Your task to perform on an android device: Go to eBay Image 0: 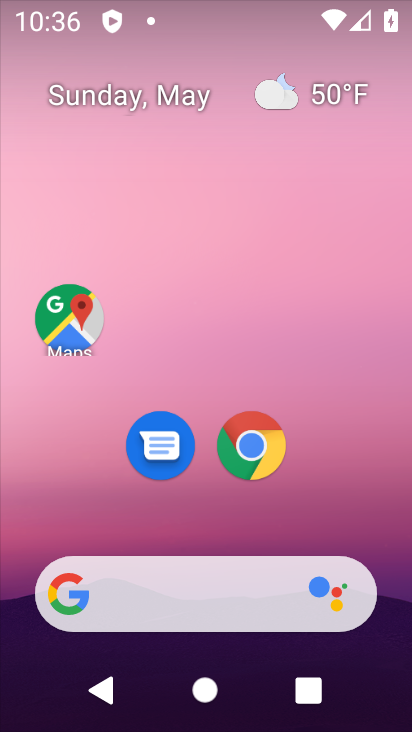
Step 0: click (256, 444)
Your task to perform on an android device: Go to eBay Image 1: 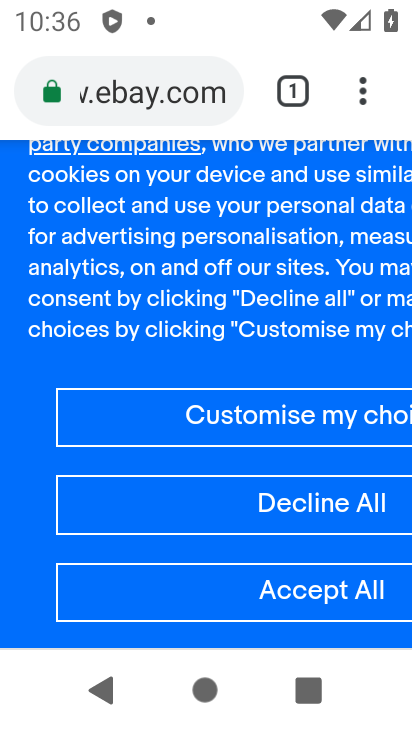
Step 1: drag from (205, 189) to (223, 592)
Your task to perform on an android device: Go to eBay Image 2: 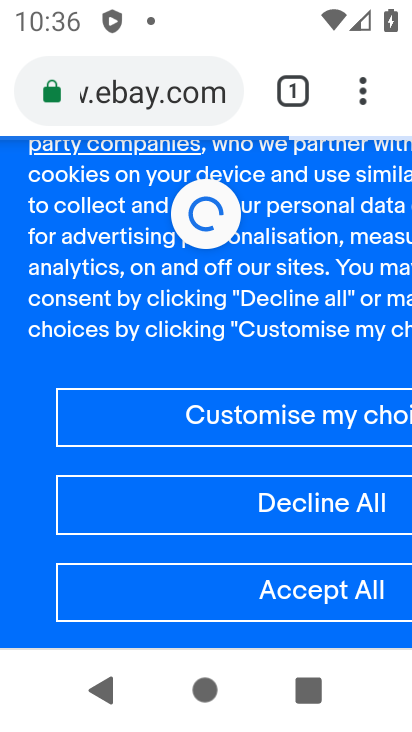
Step 2: click (185, 96)
Your task to perform on an android device: Go to eBay Image 3: 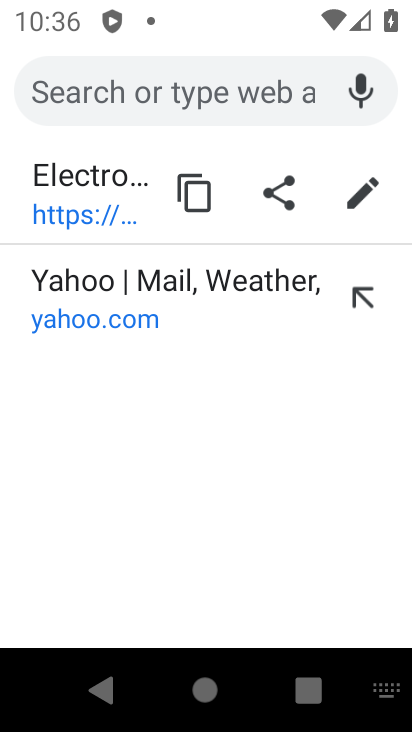
Step 3: type "eBay"
Your task to perform on an android device: Go to eBay Image 4: 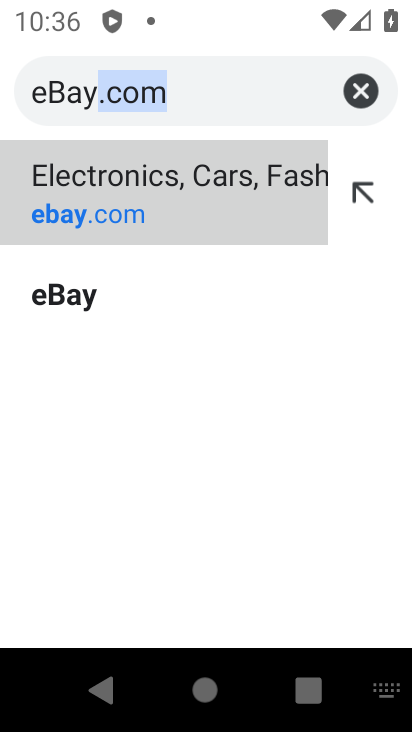
Step 4: click (281, 216)
Your task to perform on an android device: Go to eBay Image 5: 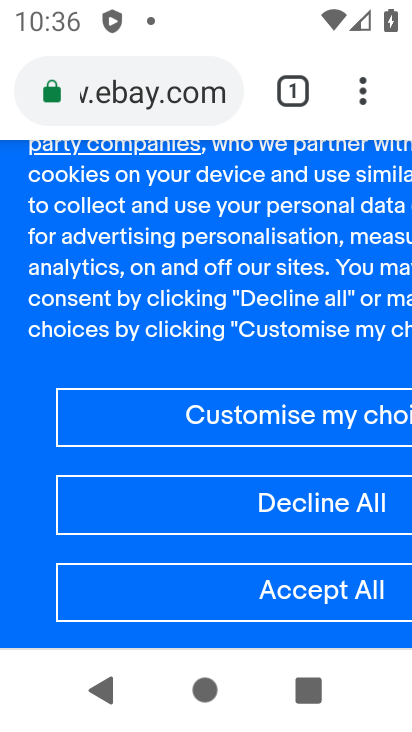
Step 5: task complete